Your task to perform on an android device: toggle notification dots Image 0: 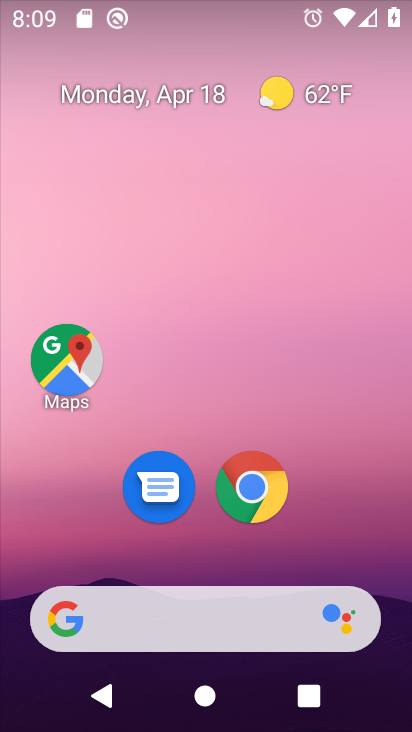
Step 0: press home button
Your task to perform on an android device: toggle notification dots Image 1: 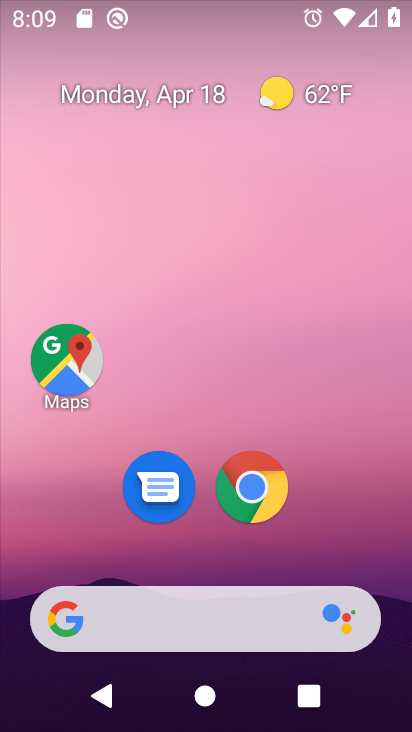
Step 1: drag from (215, 553) to (239, 76)
Your task to perform on an android device: toggle notification dots Image 2: 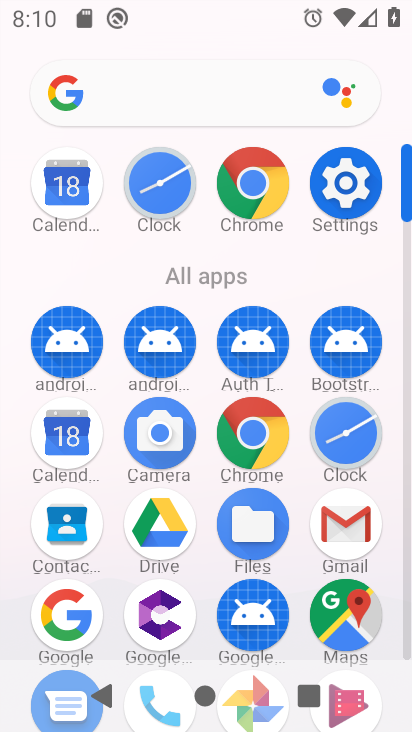
Step 2: click (348, 177)
Your task to perform on an android device: toggle notification dots Image 3: 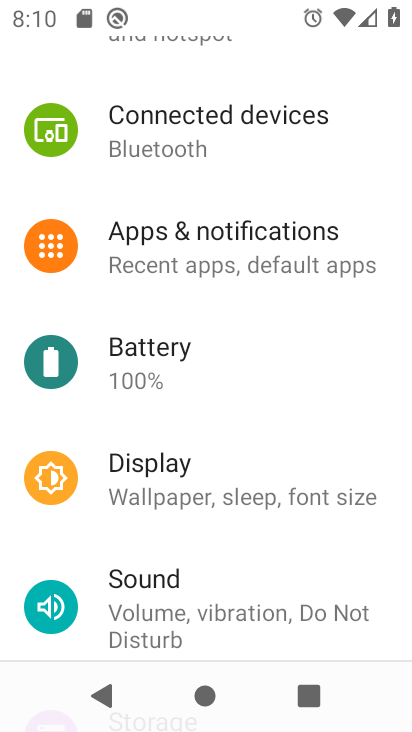
Step 3: click (201, 242)
Your task to perform on an android device: toggle notification dots Image 4: 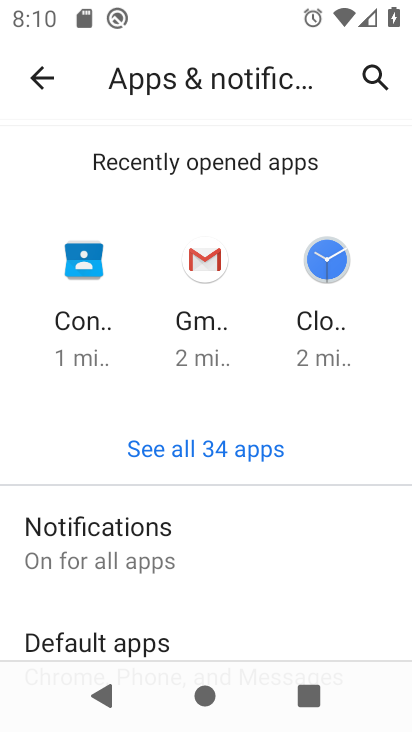
Step 4: click (183, 538)
Your task to perform on an android device: toggle notification dots Image 5: 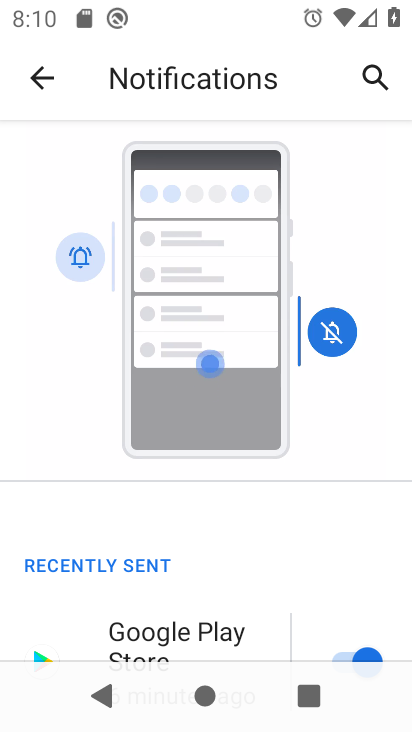
Step 5: drag from (221, 588) to (241, 180)
Your task to perform on an android device: toggle notification dots Image 6: 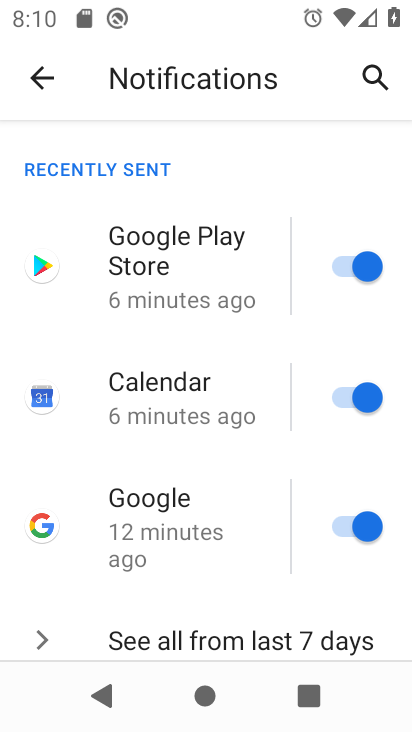
Step 6: drag from (245, 590) to (304, 148)
Your task to perform on an android device: toggle notification dots Image 7: 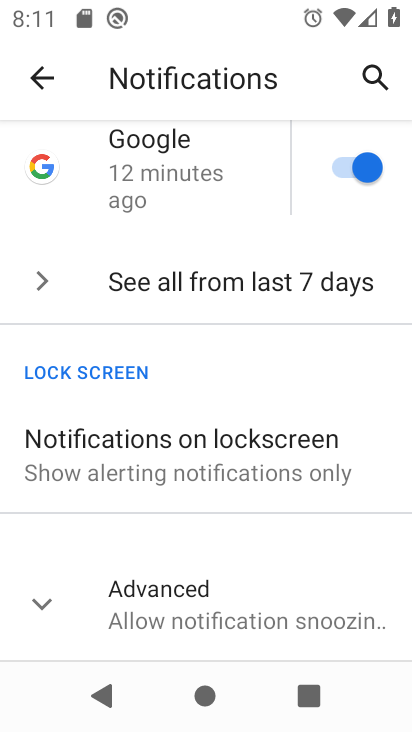
Step 7: click (43, 595)
Your task to perform on an android device: toggle notification dots Image 8: 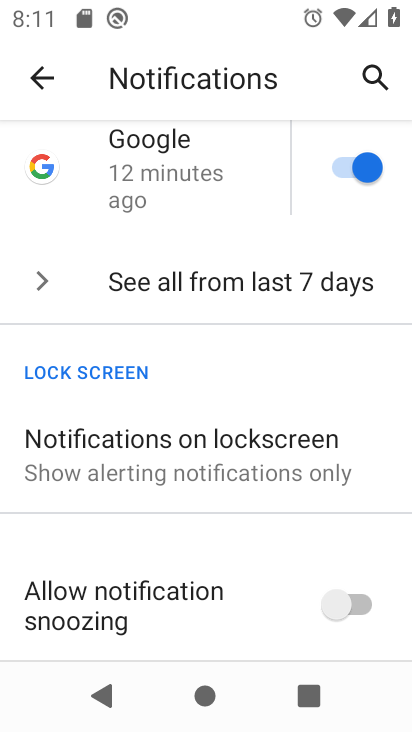
Step 8: drag from (180, 623) to (209, 167)
Your task to perform on an android device: toggle notification dots Image 9: 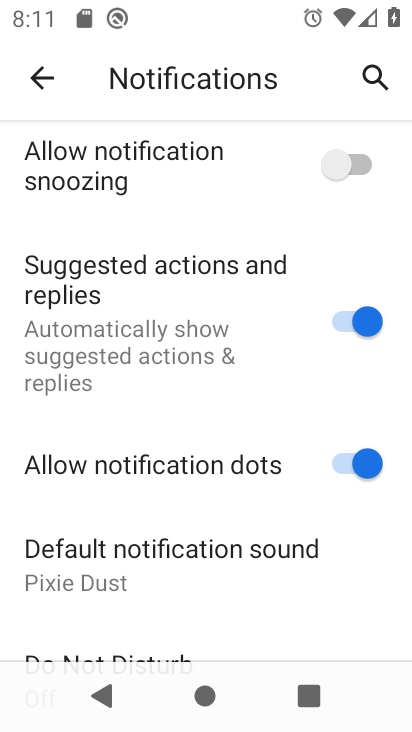
Step 9: click (338, 457)
Your task to perform on an android device: toggle notification dots Image 10: 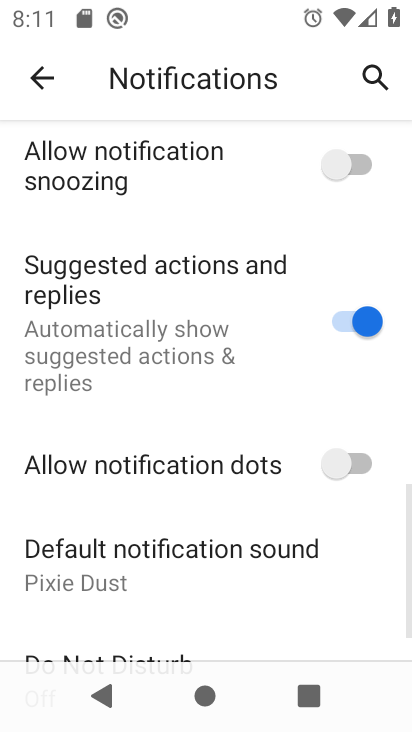
Step 10: task complete